Your task to perform on an android device: open wifi settings Image 0: 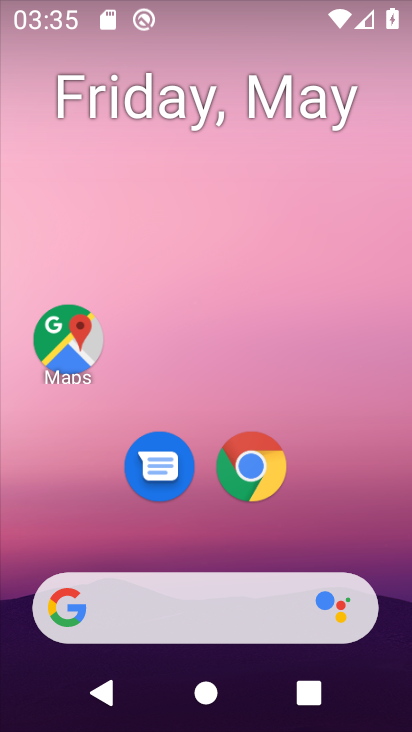
Step 0: click (367, 256)
Your task to perform on an android device: open wifi settings Image 1: 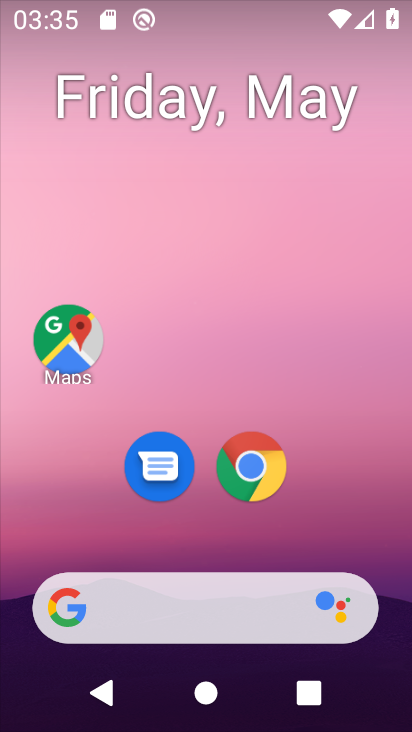
Step 1: drag from (367, 359) to (360, 306)
Your task to perform on an android device: open wifi settings Image 2: 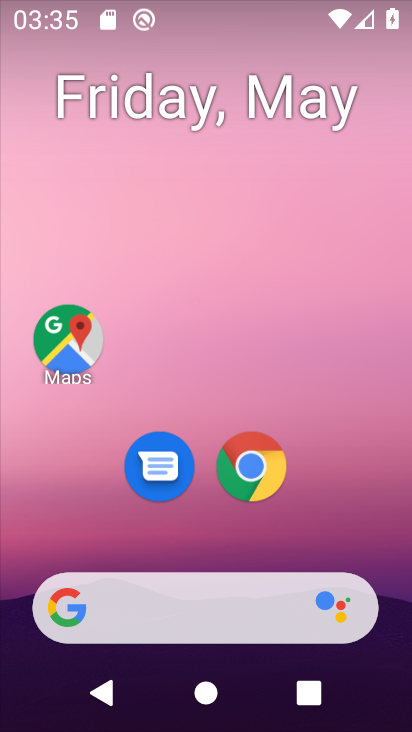
Step 2: click (381, 385)
Your task to perform on an android device: open wifi settings Image 3: 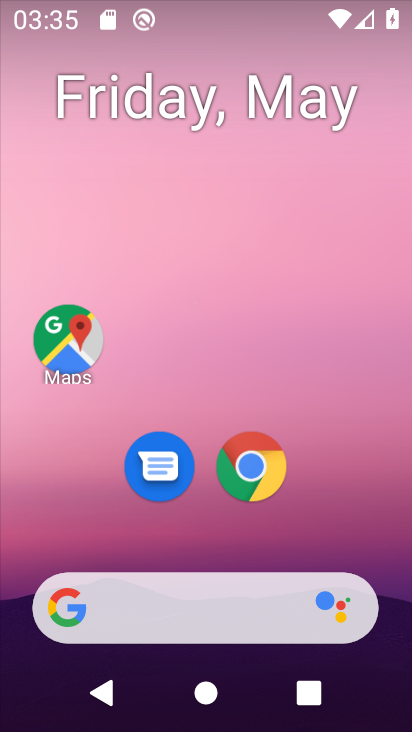
Step 3: drag from (399, 642) to (353, 259)
Your task to perform on an android device: open wifi settings Image 4: 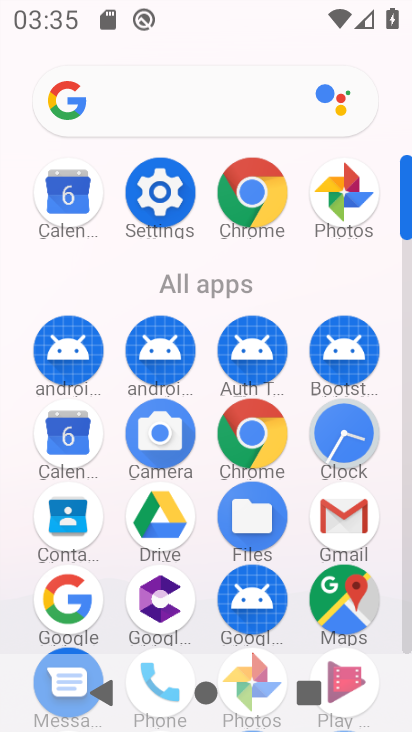
Step 4: click (171, 185)
Your task to perform on an android device: open wifi settings Image 5: 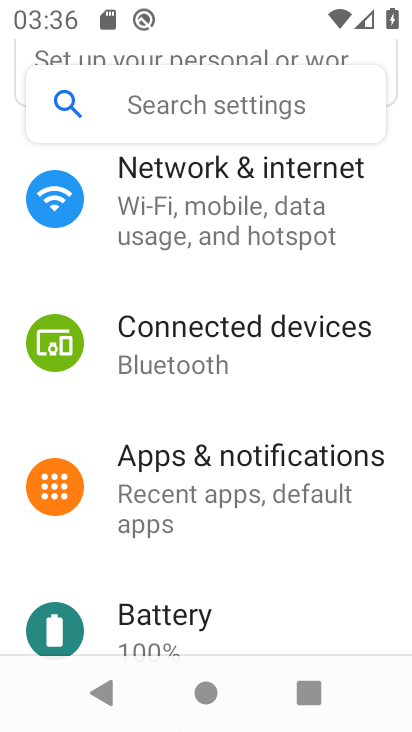
Step 5: click (337, 636)
Your task to perform on an android device: open wifi settings Image 6: 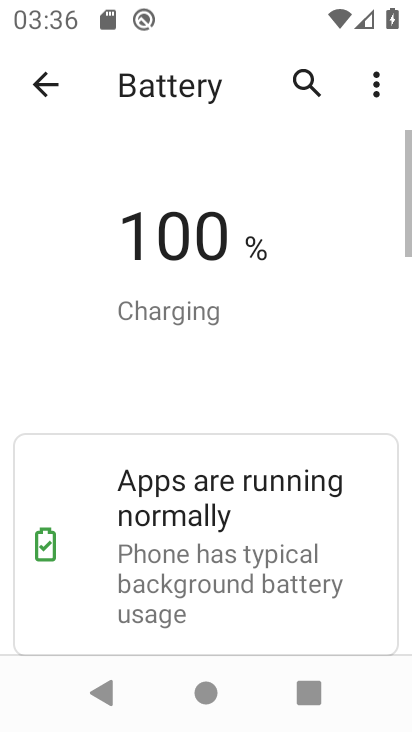
Step 6: click (39, 93)
Your task to perform on an android device: open wifi settings Image 7: 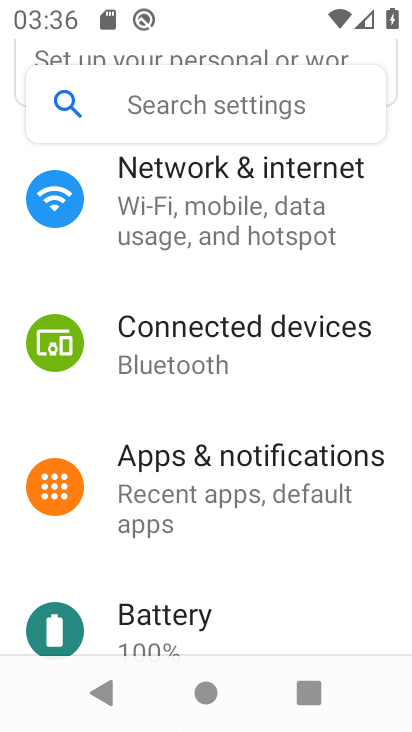
Step 7: click (216, 218)
Your task to perform on an android device: open wifi settings Image 8: 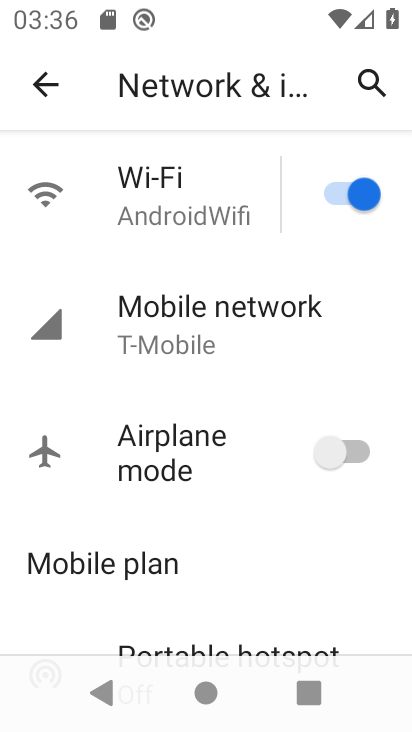
Step 8: task complete